Your task to perform on an android device: toggle pop-ups in chrome Image 0: 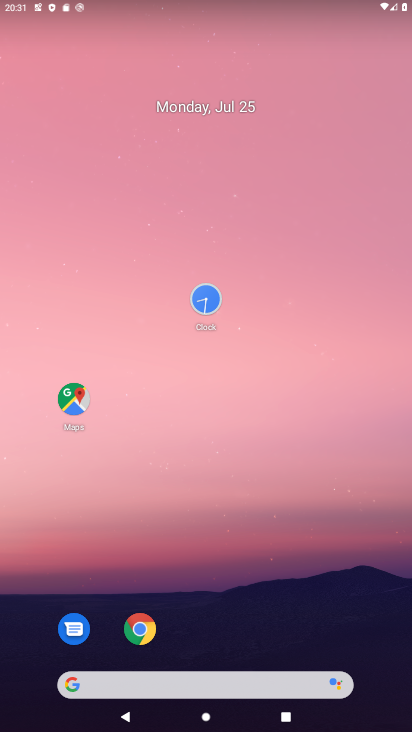
Step 0: click (153, 634)
Your task to perform on an android device: toggle pop-ups in chrome Image 1: 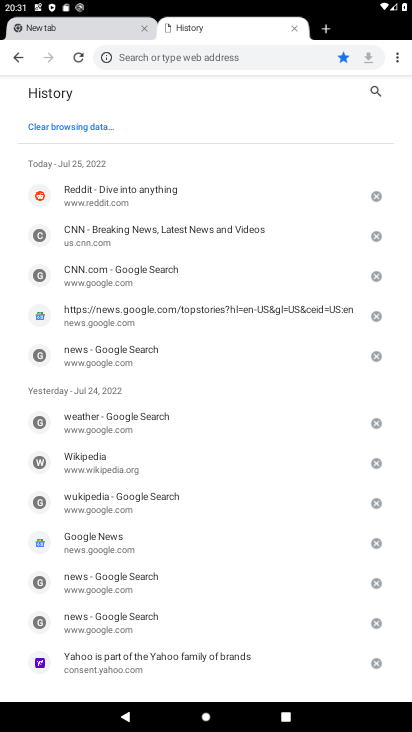
Step 1: click (399, 52)
Your task to perform on an android device: toggle pop-ups in chrome Image 2: 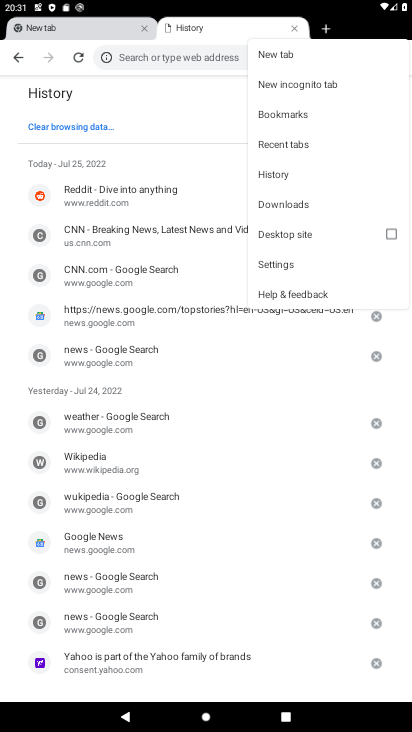
Step 2: click (280, 261)
Your task to perform on an android device: toggle pop-ups in chrome Image 3: 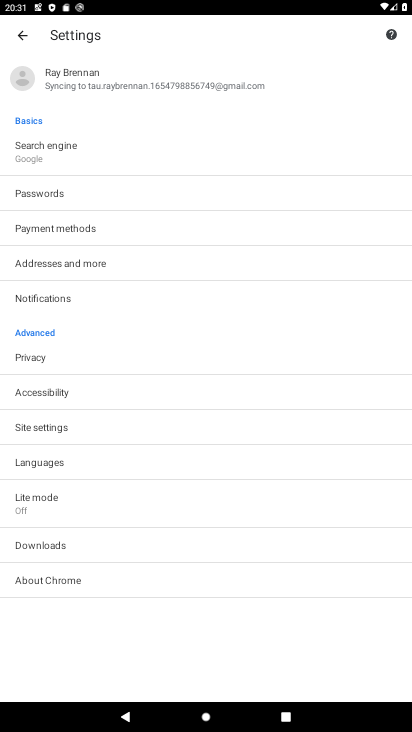
Step 3: click (57, 432)
Your task to perform on an android device: toggle pop-ups in chrome Image 4: 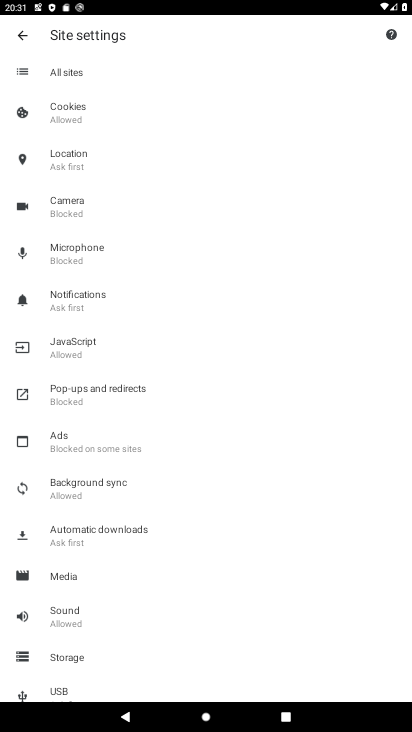
Step 4: click (107, 392)
Your task to perform on an android device: toggle pop-ups in chrome Image 5: 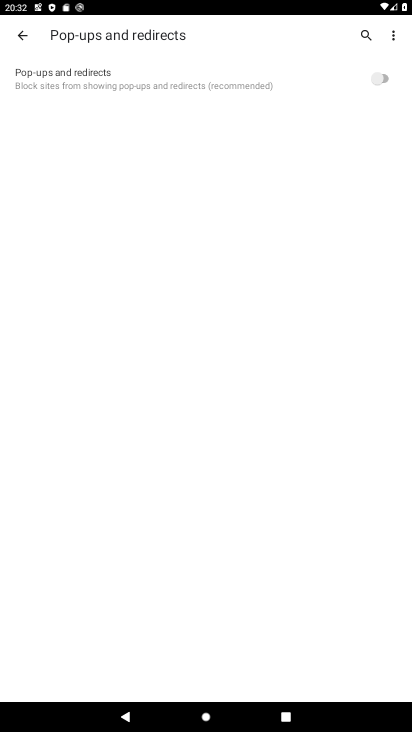
Step 5: click (347, 77)
Your task to perform on an android device: toggle pop-ups in chrome Image 6: 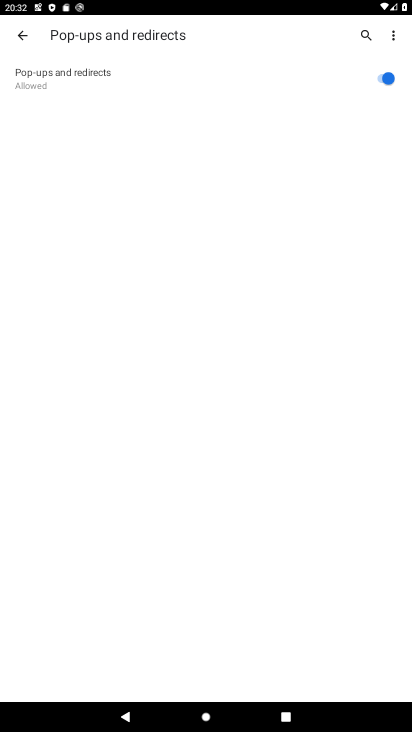
Step 6: task complete